Your task to perform on an android device: Open the phone app and click the voicemail tab. Image 0: 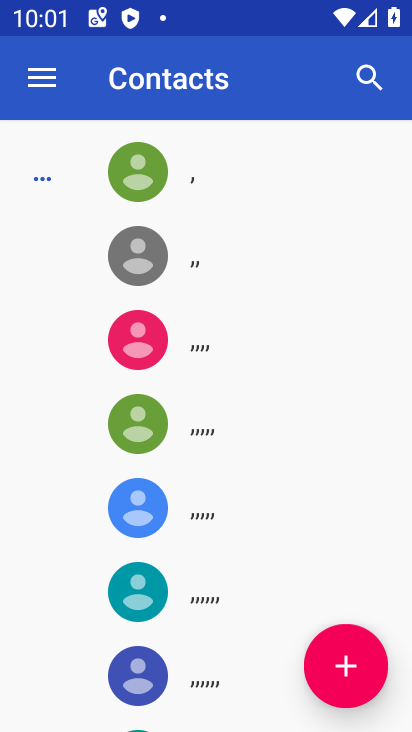
Step 0: press home button
Your task to perform on an android device: Open the phone app and click the voicemail tab. Image 1: 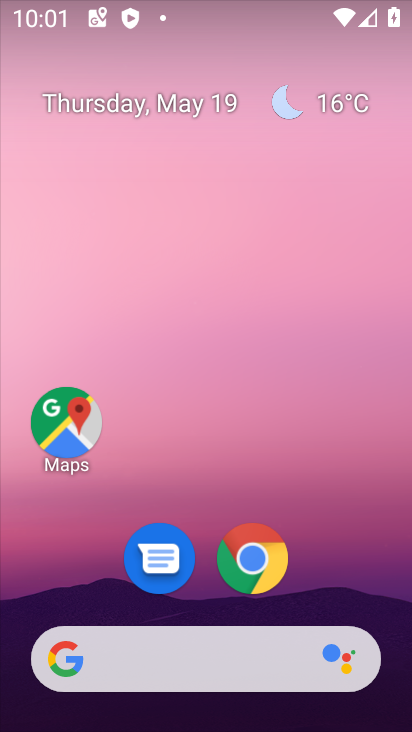
Step 1: drag from (241, 716) to (245, 3)
Your task to perform on an android device: Open the phone app and click the voicemail tab. Image 2: 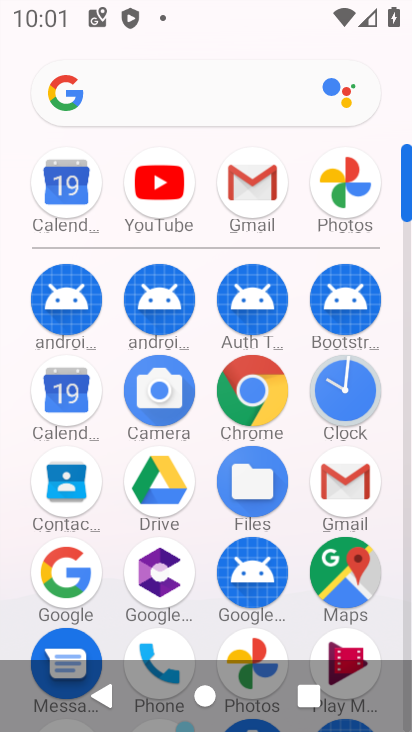
Step 2: drag from (294, 589) to (311, 225)
Your task to perform on an android device: Open the phone app and click the voicemail tab. Image 3: 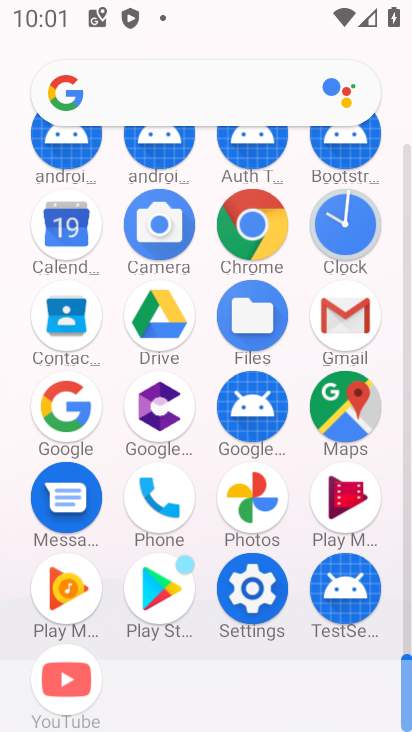
Step 3: click (159, 496)
Your task to perform on an android device: Open the phone app and click the voicemail tab. Image 4: 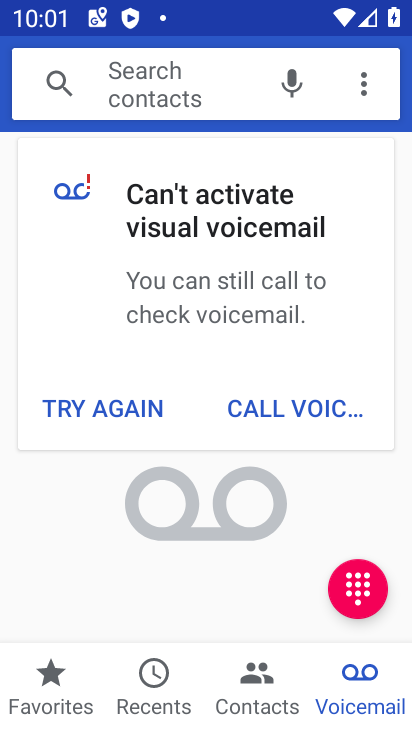
Step 4: task complete